Your task to perform on an android device: Search for Italian restaurants on Maps Image 0: 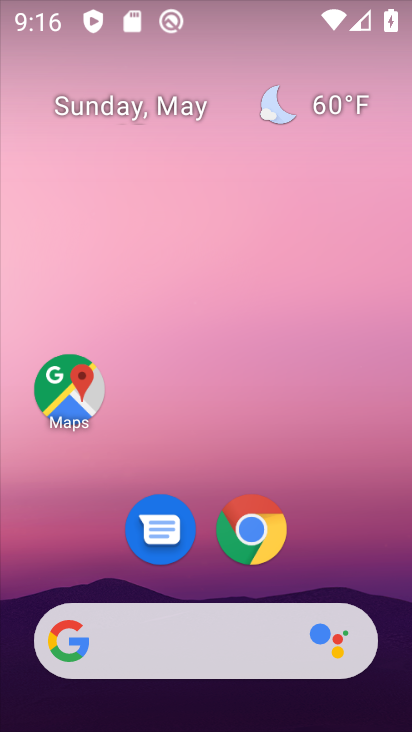
Step 0: drag from (385, 571) to (379, 113)
Your task to perform on an android device: Search for Italian restaurants on Maps Image 1: 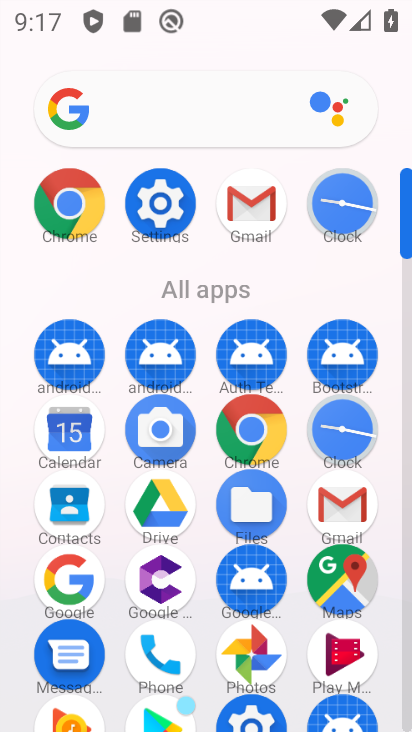
Step 1: click (363, 571)
Your task to perform on an android device: Search for Italian restaurants on Maps Image 2: 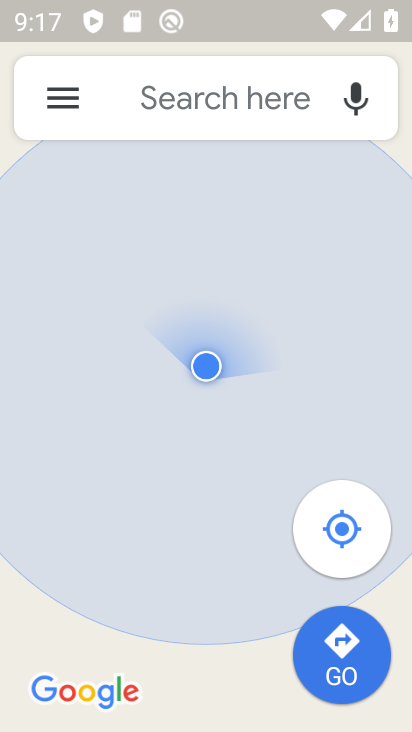
Step 2: click (303, 102)
Your task to perform on an android device: Search for Italian restaurants on Maps Image 3: 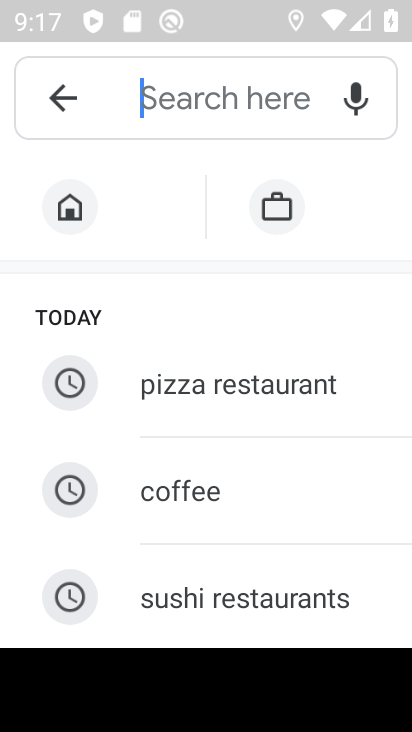
Step 3: type "italian restaurants"
Your task to perform on an android device: Search for Italian restaurants on Maps Image 4: 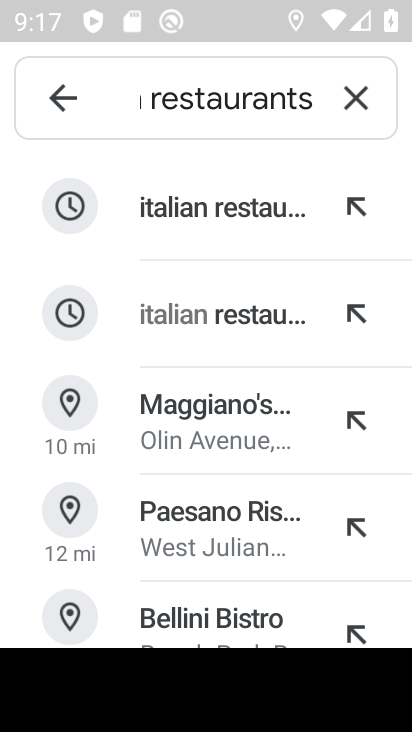
Step 4: click (197, 216)
Your task to perform on an android device: Search for Italian restaurants on Maps Image 5: 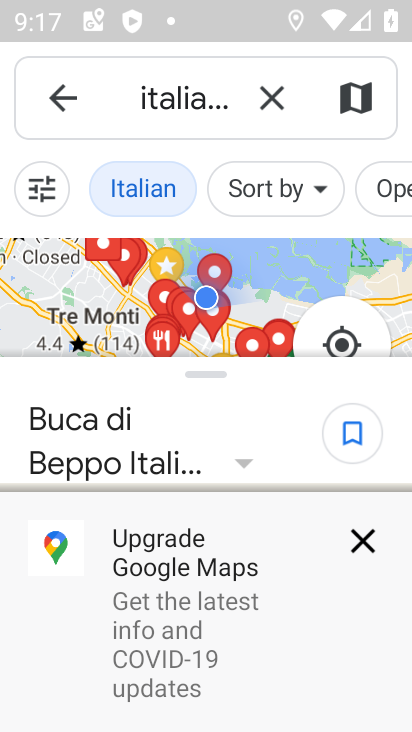
Step 5: task complete